Your task to perform on an android device: turn on showing notifications on the lock screen Image 0: 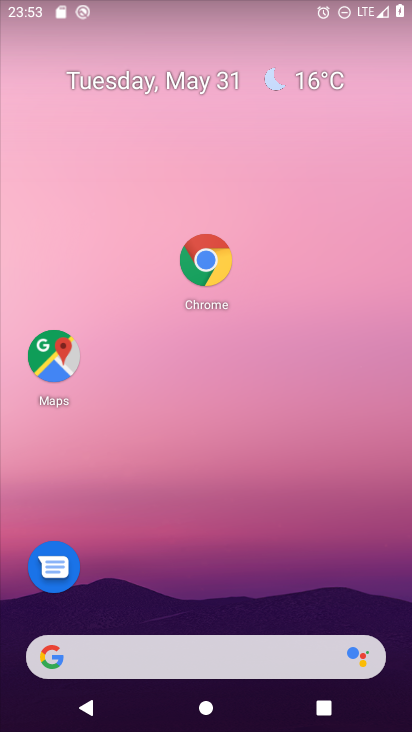
Step 0: drag from (221, 573) to (258, 145)
Your task to perform on an android device: turn on showing notifications on the lock screen Image 1: 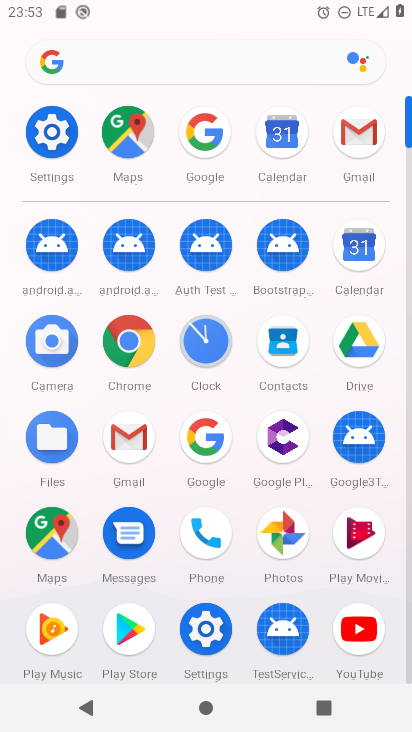
Step 1: click (212, 629)
Your task to perform on an android device: turn on showing notifications on the lock screen Image 2: 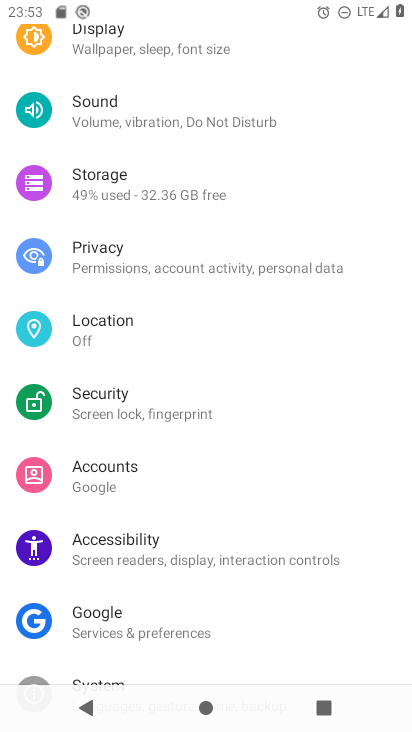
Step 2: drag from (257, 156) to (256, 619)
Your task to perform on an android device: turn on showing notifications on the lock screen Image 3: 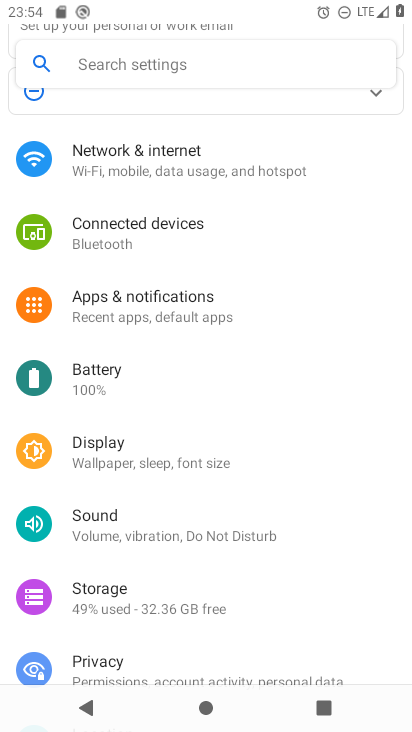
Step 3: drag from (170, 647) to (178, 249)
Your task to perform on an android device: turn on showing notifications on the lock screen Image 4: 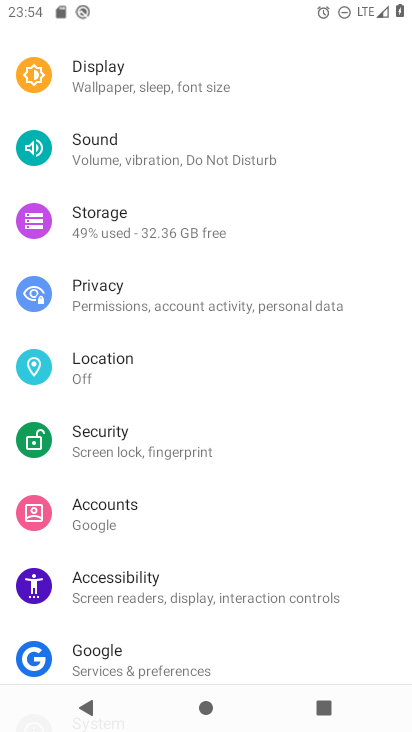
Step 4: click (124, 291)
Your task to perform on an android device: turn on showing notifications on the lock screen Image 5: 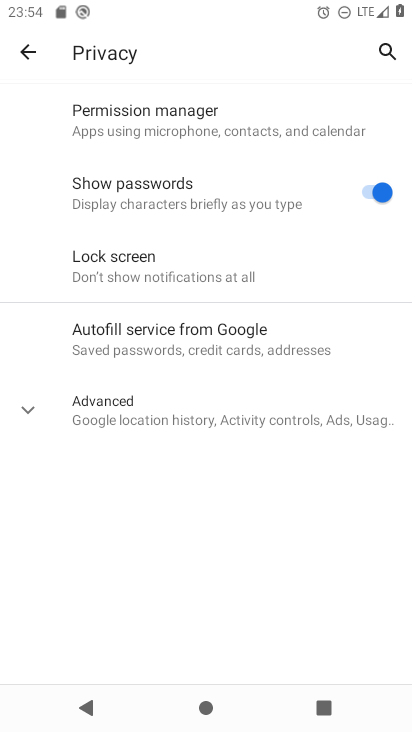
Step 5: click (119, 404)
Your task to perform on an android device: turn on showing notifications on the lock screen Image 6: 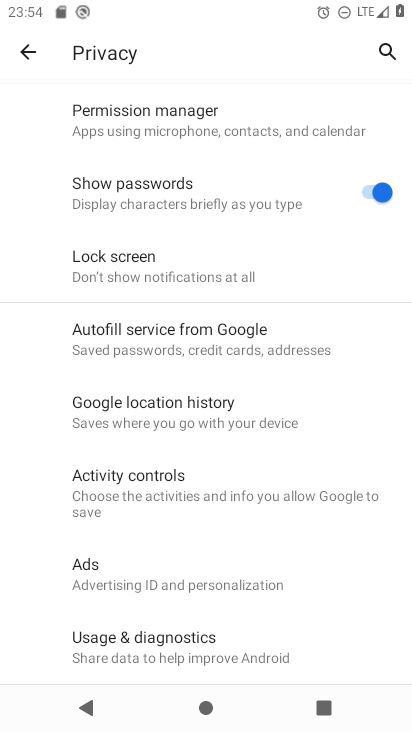
Step 6: click (119, 266)
Your task to perform on an android device: turn on showing notifications on the lock screen Image 7: 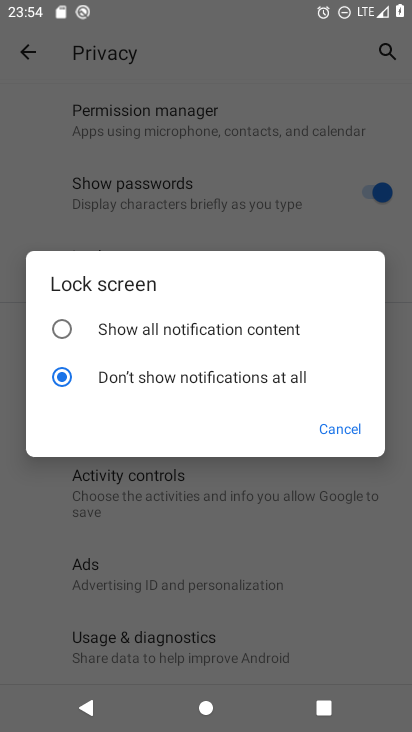
Step 7: click (124, 330)
Your task to perform on an android device: turn on showing notifications on the lock screen Image 8: 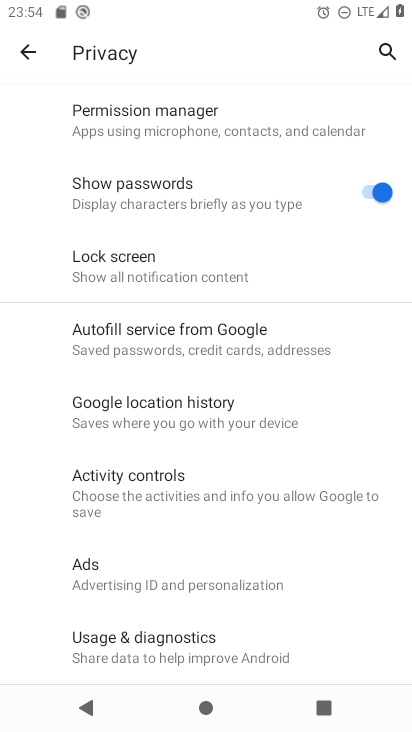
Step 8: task complete